Your task to perform on an android device: toggle translation in the chrome app Image 0: 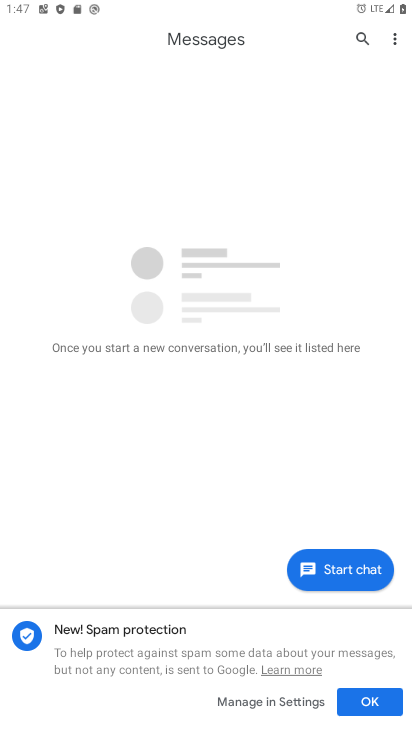
Step 0: press home button
Your task to perform on an android device: toggle translation in the chrome app Image 1: 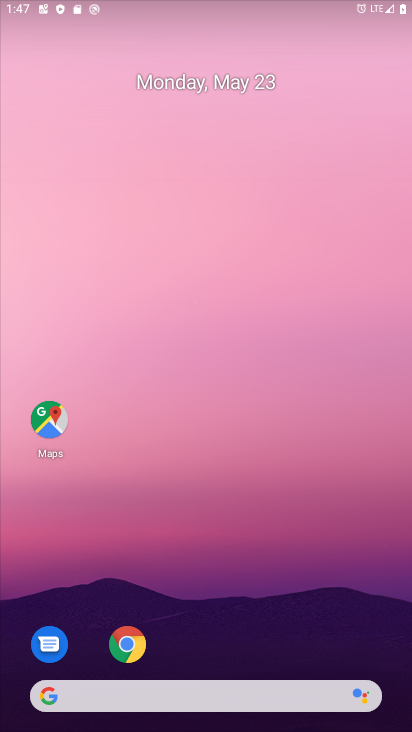
Step 1: drag from (380, 620) to (264, 46)
Your task to perform on an android device: toggle translation in the chrome app Image 2: 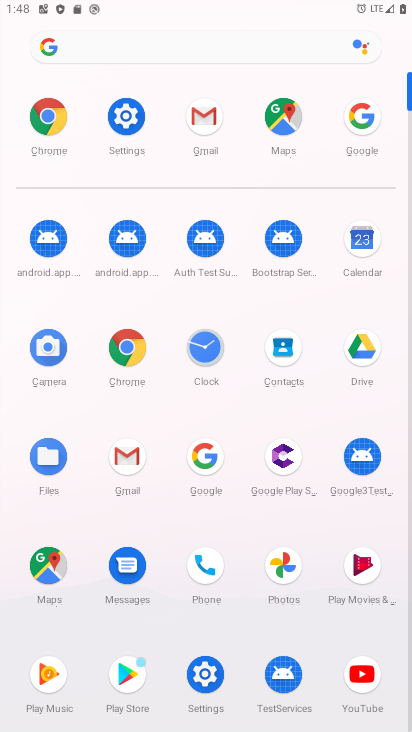
Step 2: click (44, 108)
Your task to perform on an android device: toggle translation in the chrome app Image 3: 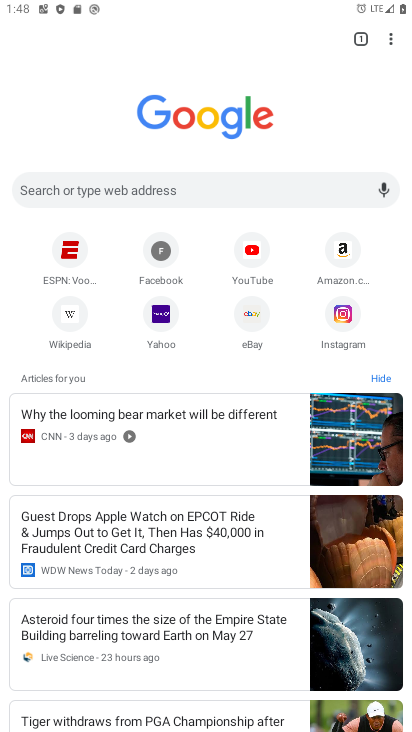
Step 3: click (396, 39)
Your task to perform on an android device: toggle translation in the chrome app Image 4: 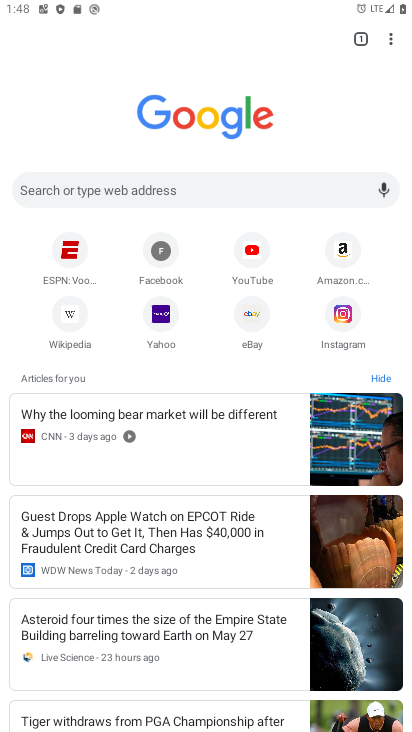
Step 4: click (386, 30)
Your task to perform on an android device: toggle translation in the chrome app Image 5: 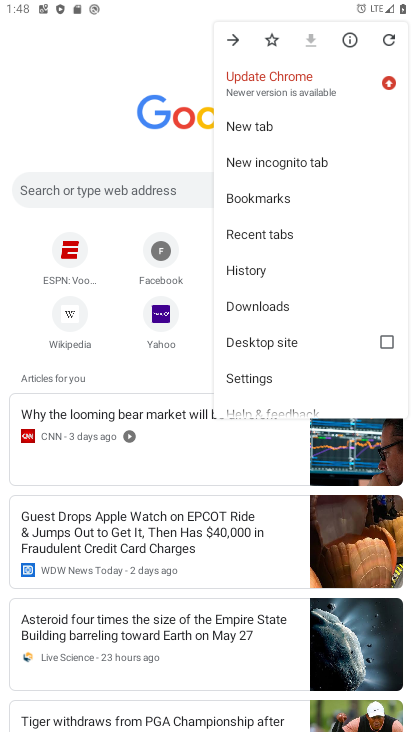
Step 5: click (295, 376)
Your task to perform on an android device: toggle translation in the chrome app Image 6: 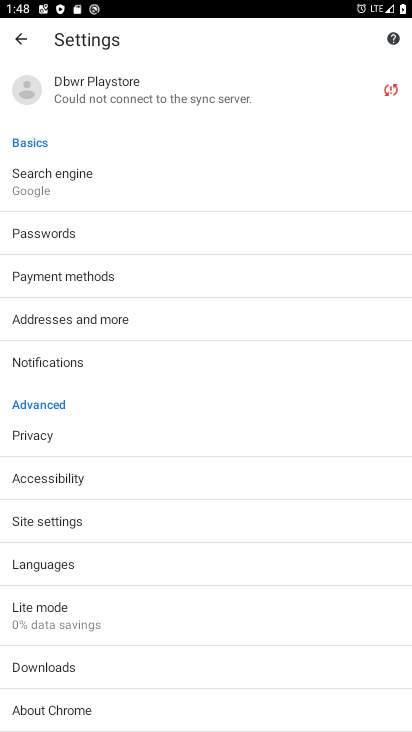
Step 6: click (97, 558)
Your task to perform on an android device: toggle translation in the chrome app Image 7: 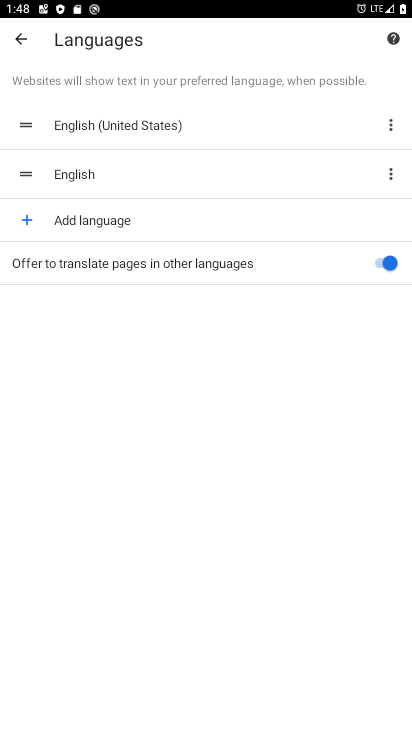
Step 7: click (336, 265)
Your task to perform on an android device: toggle translation in the chrome app Image 8: 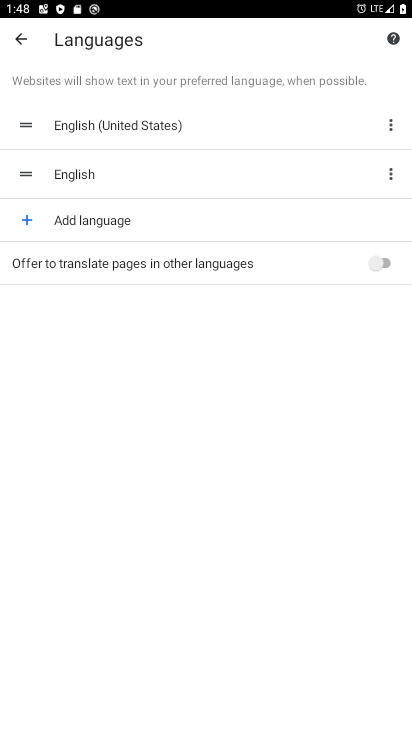
Step 8: task complete